Your task to perform on an android device: turn pop-ups off in chrome Image 0: 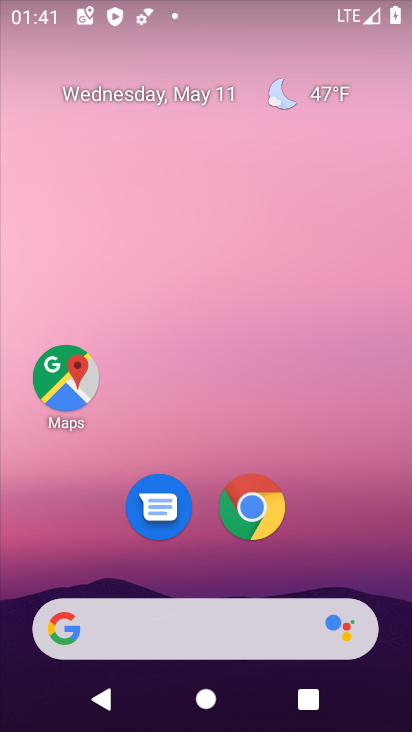
Step 0: click (255, 508)
Your task to perform on an android device: turn pop-ups off in chrome Image 1: 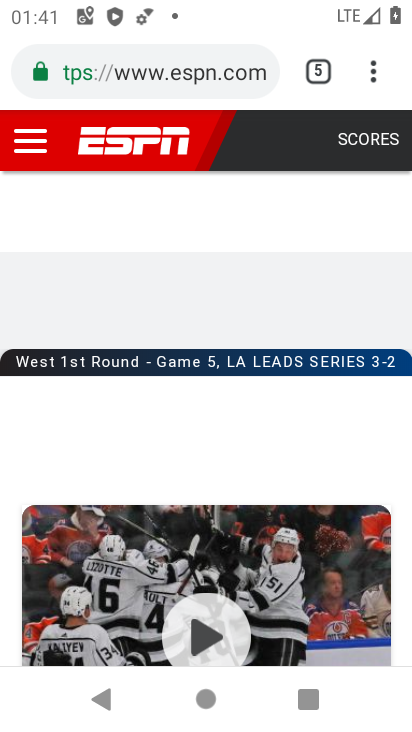
Step 1: click (366, 65)
Your task to perform on an android device: turn pop-ups off in chrome Image 2: 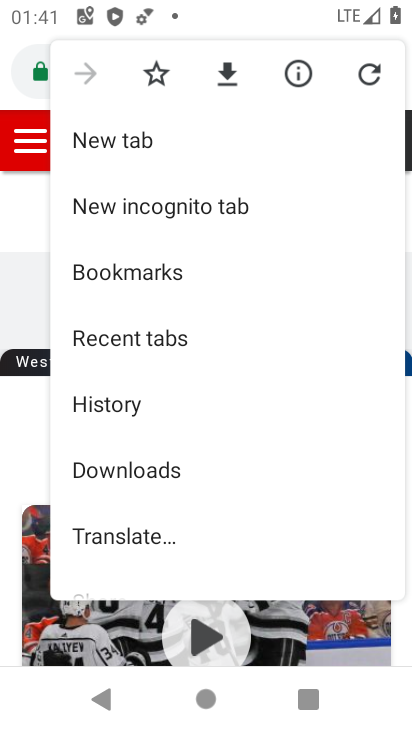
Step 2: drag from (228, 424) to (97, 64)
Your task to perform on an android device: turn pop-ups off in chrome Image 3: 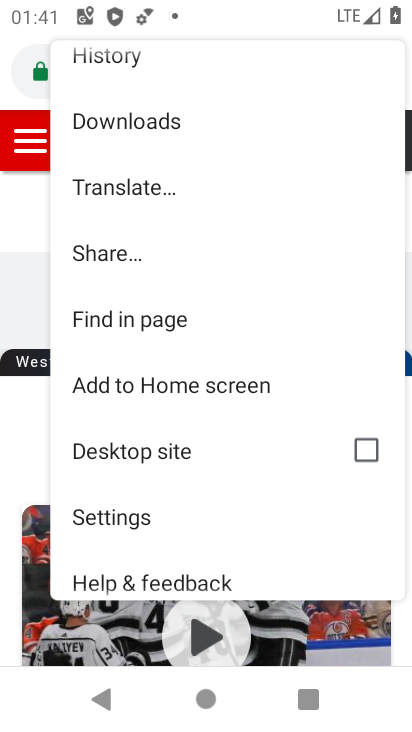
Step 3: click (112, 519)
Your task to perform on an android device: turn pop-ups off in chrome Image 4: 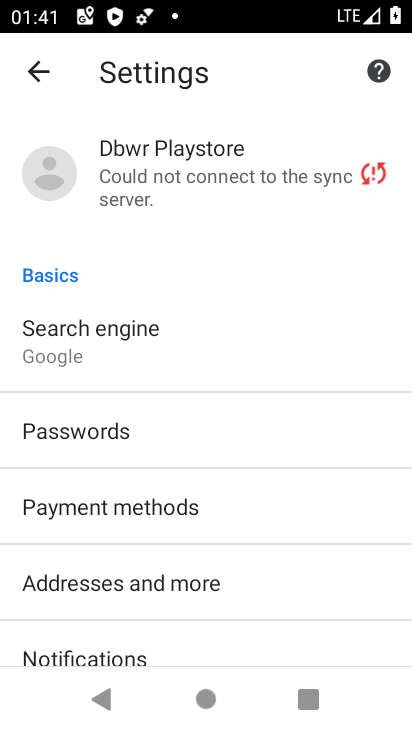
Step 4: drag from (216, 472) to (198, 264)
Your task to perform on an android device: turn pop-ups off in chrome Image 5: 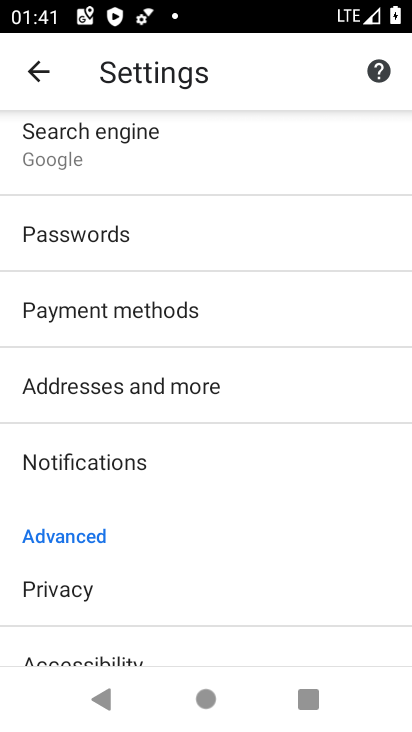
Step 5: drag from (228, 506) to (188, 241)
Your task to perform on an android device: turn pop-ups off in chrome Image 6: 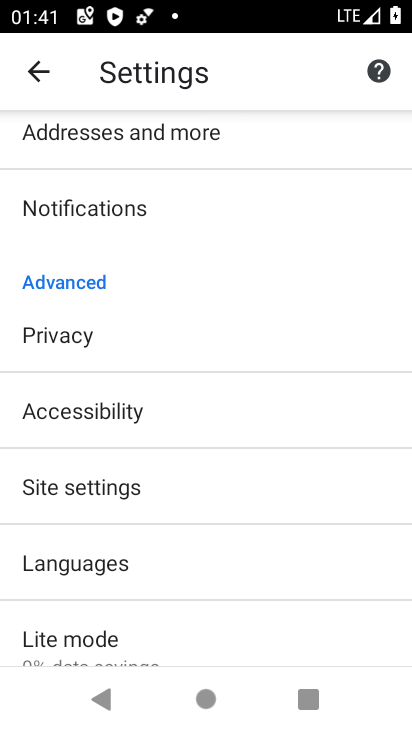
Step 6: drag from (169, 486) to (131, 320)
Your task to perform on an android device: turn pop-ups off in chrome Image 7: 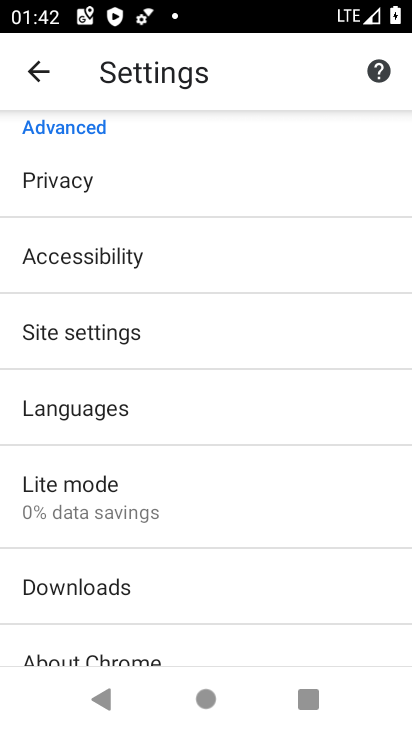
Step 7: click (94, 327)
Your task to perform on an android device: turn pop-ups off in chrome Image 8: 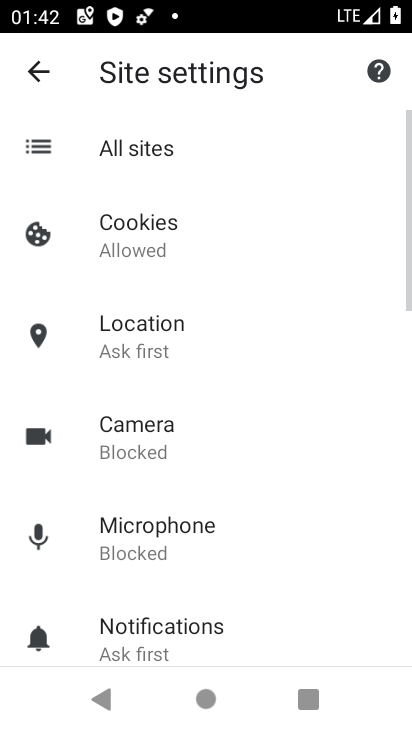
Step 8: drag from (298, 357) to (236, 52)
Your task to perform on an android device: turn pop-ups off in chrome Image 9: 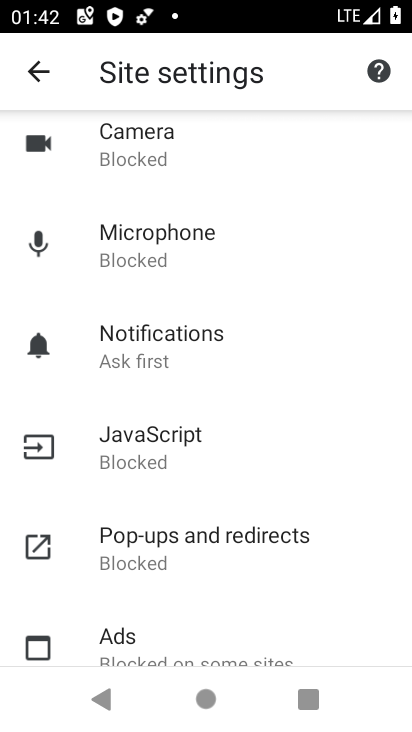
Step 9: drag from (251, 411) to (231, 88)
Your task to perform on an android device: turn pop-ups off in chrome Image 10: 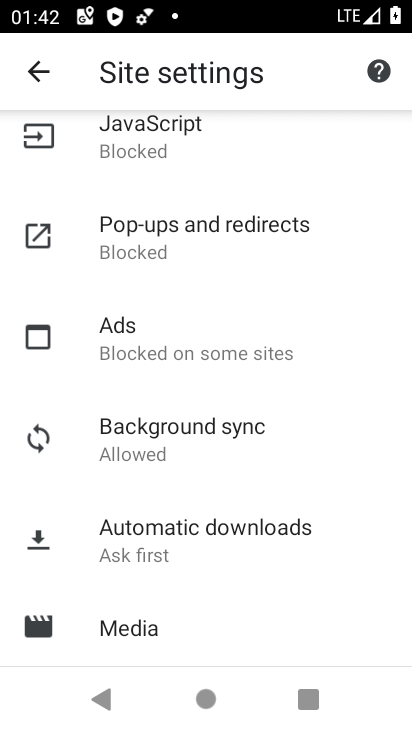
Step 10: click (186, 207)
Your task to perform on an android device: turn pop-ups off in chrome Image 11: 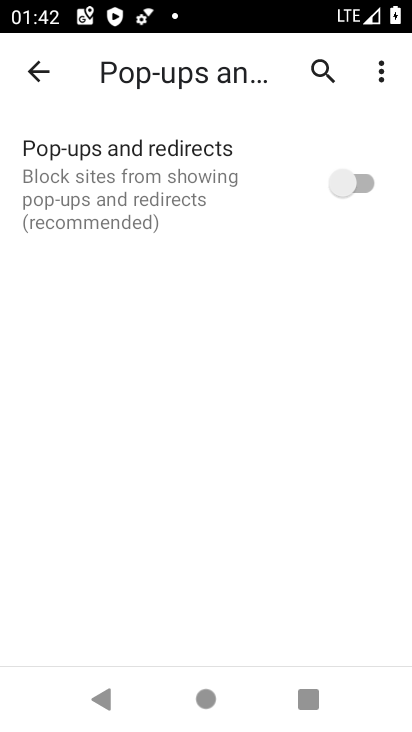
Step 11: task complete